Your task to perform on an android device: open app "Facebook Messenger" (install if not already installed), go to login, and select forgot password Image 0: 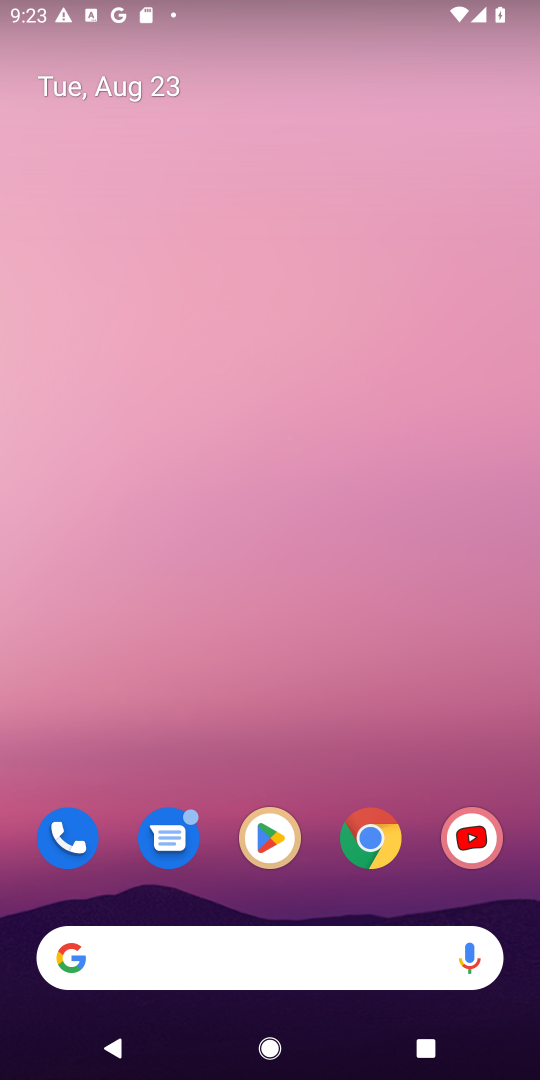
Step 0: click (269, 818)
Your task to perform on an android device: open app "Facebook Messenger" (install if not already installed), go to login, and select forgot password Image 1: 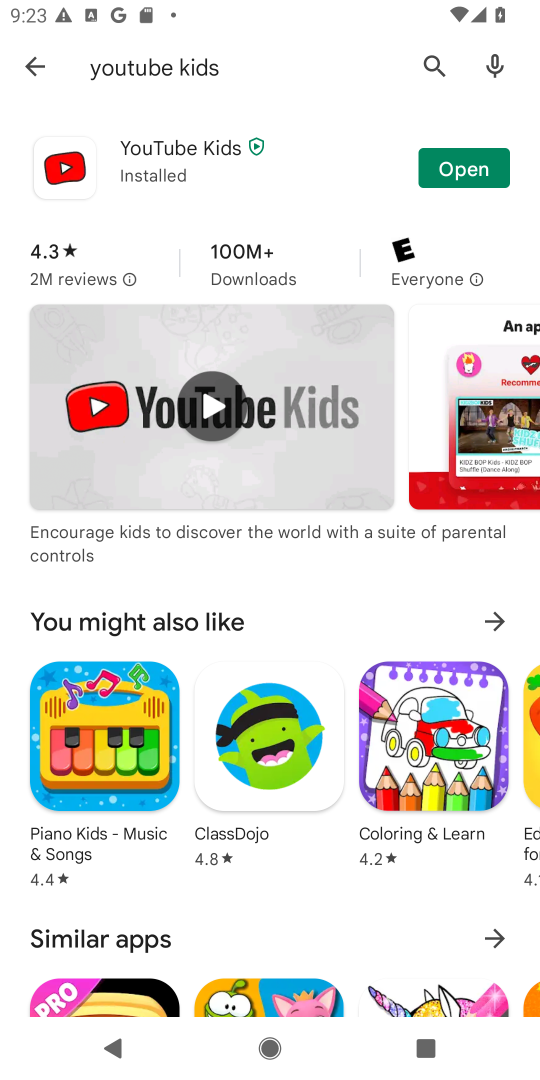
Step 1: click (415, 44)
Your task to perform on an android device: open app "Facebook Messenger" (install if not already installed), go to login, and select forgot password Image 2: 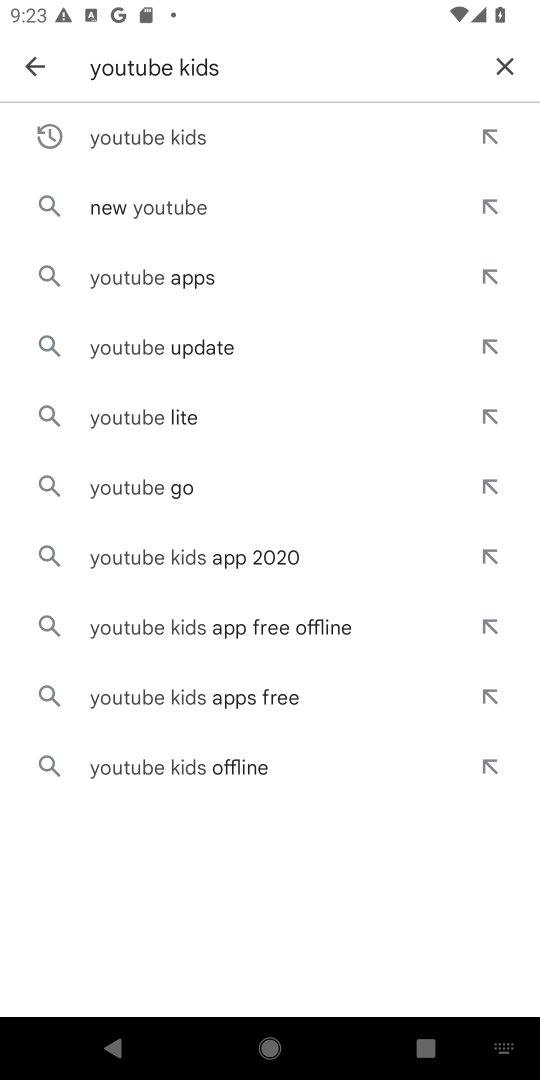
Step 2: click (508, 59)
Your task to perform on an android device: open app "Facebook Messenger" (install if not already installed), go to login, and select forgot password Image 3: 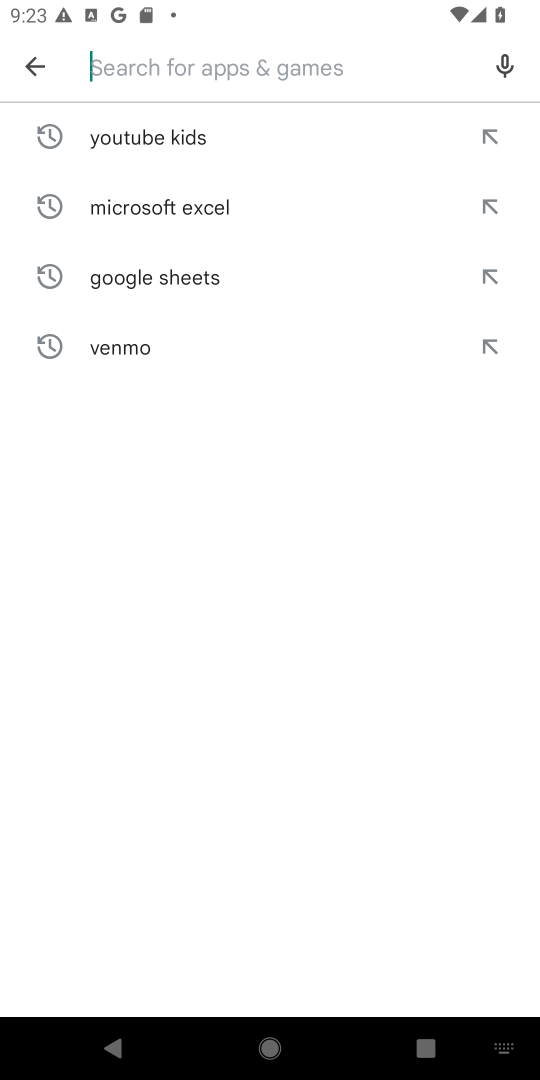
Step 3: type "Facebook Messenger"
Your task to perform on an android device: open app "Facebook Messenger" (install if not already installed), go to login, and select forgot password Image 4: 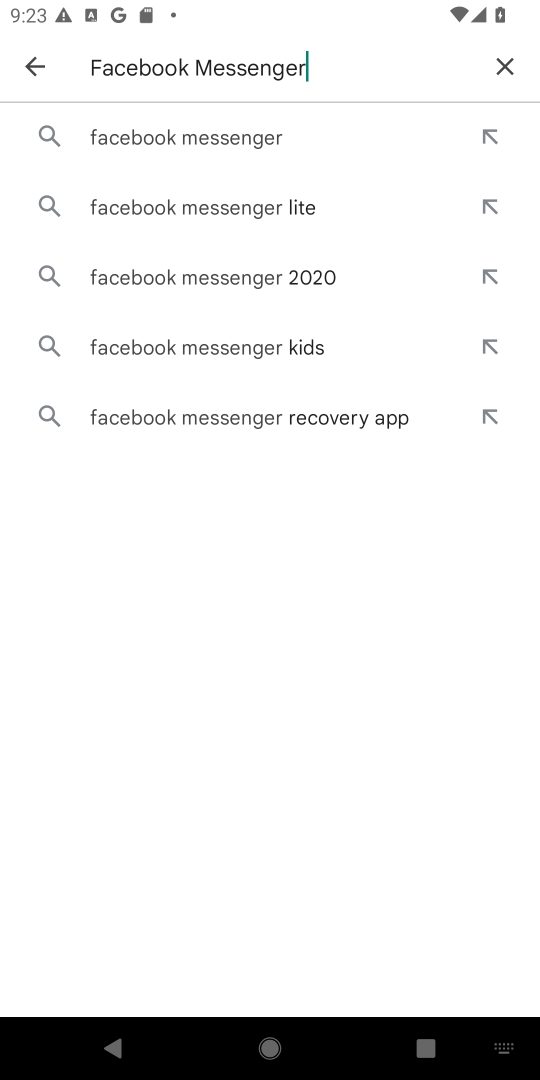
Step 4: click (224, 143)
Your task to perform on an android device: open app "Facebook Messenger" (install if not already installed), go to login, and select forgot password Image 5: 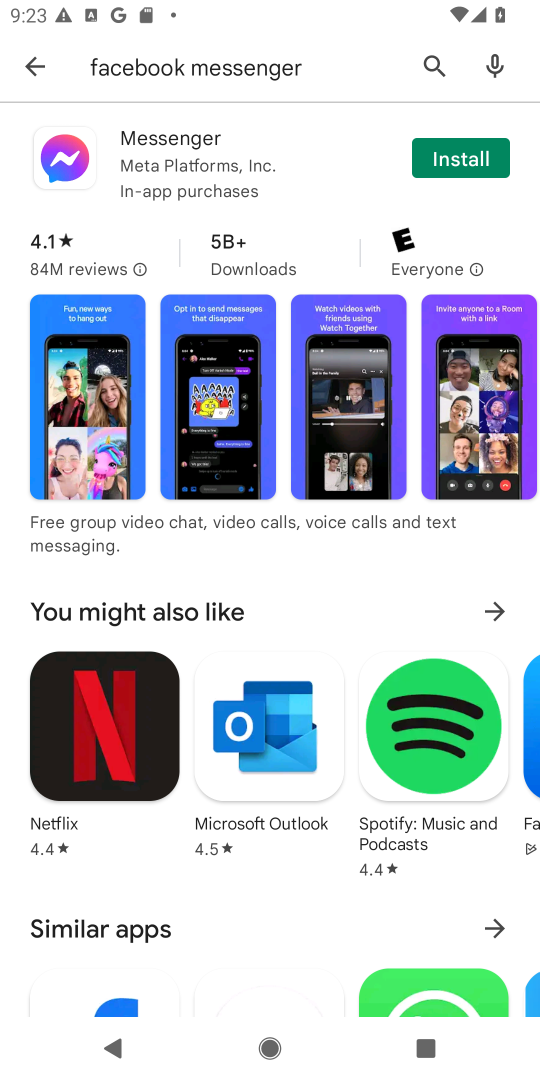
Step 5: click (449, 165)
Your task to perform on an android device: open app "Facebook Messenger" (install if not already installed), go to login, and select forgot password Image 6: 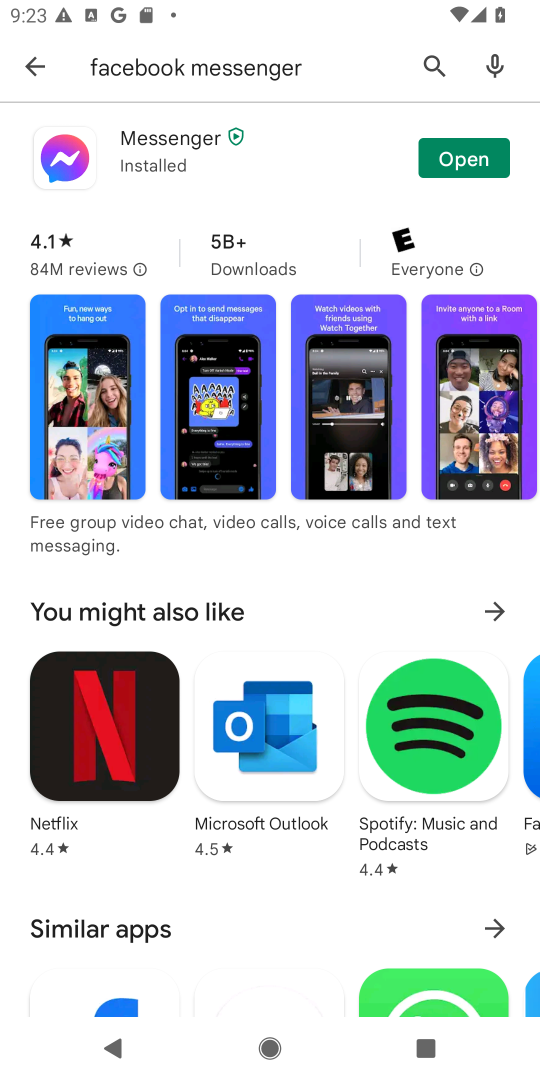
Step 6: click (447, 160)
Your task to perform on an android device: open app "Facebook Messenger" (install if not already installed), go to login, and select forgot password Image 7: 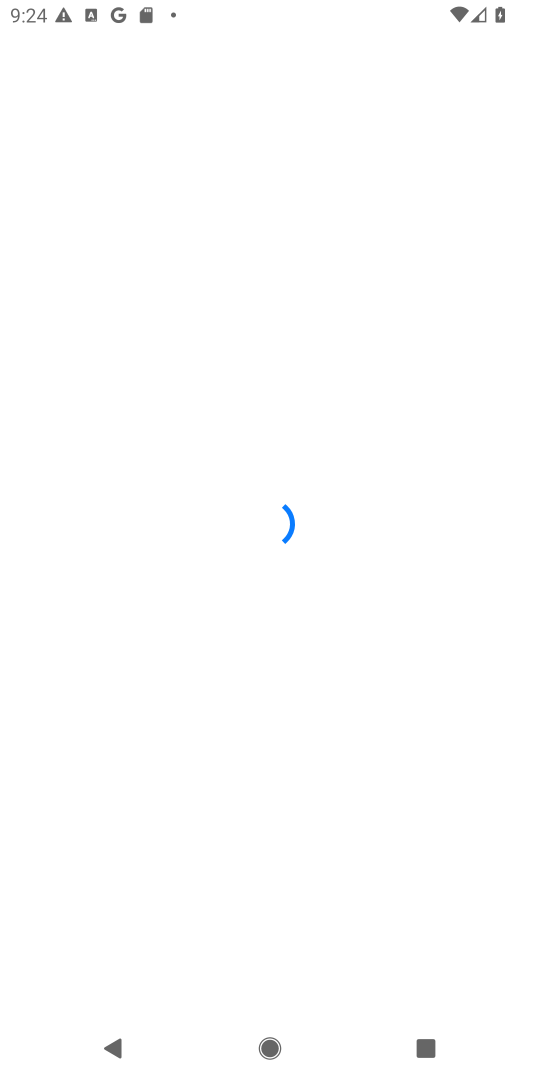
Step 7: press home button
Your task to perform on an android device: open app "Facebook Messenger" (install if not already installed), go to login, and select forgot password Image 8: 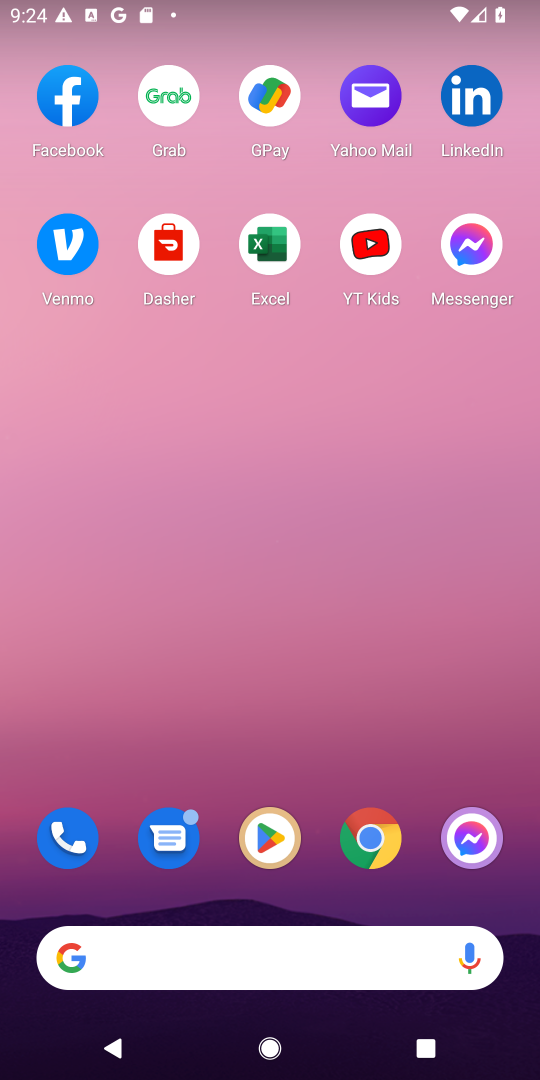
Step 8: click (280, 835)
Your task to perform on an android device: open app "Facebook Messenger" (install if not already installed), go to login, and select forgot password Image 9: 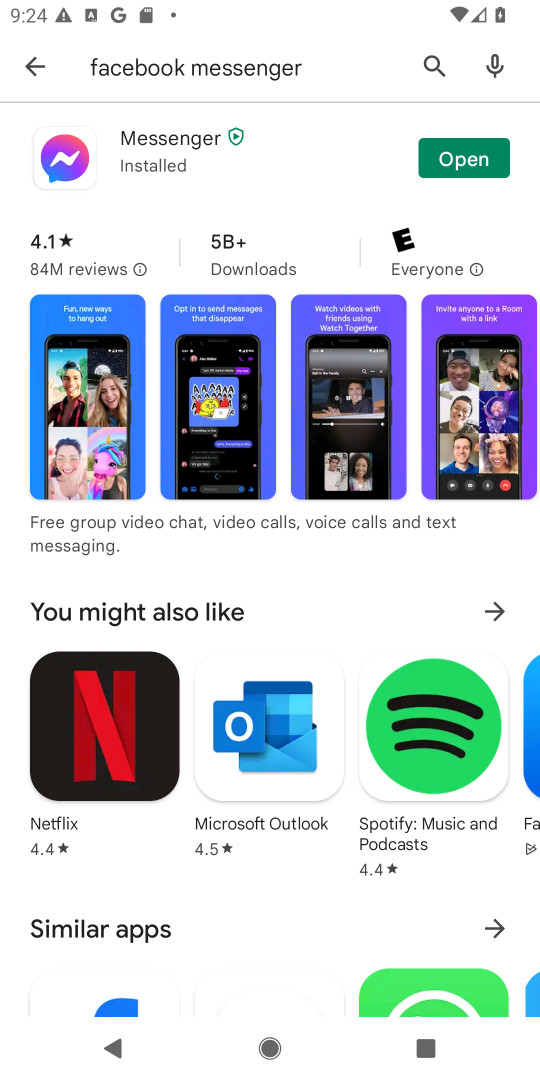
Step 9: click (456, 170)
Your task to perform on an android device: open app "Facebook Messenger" (install if not already installed), go to login, and select forgot password Image 10: 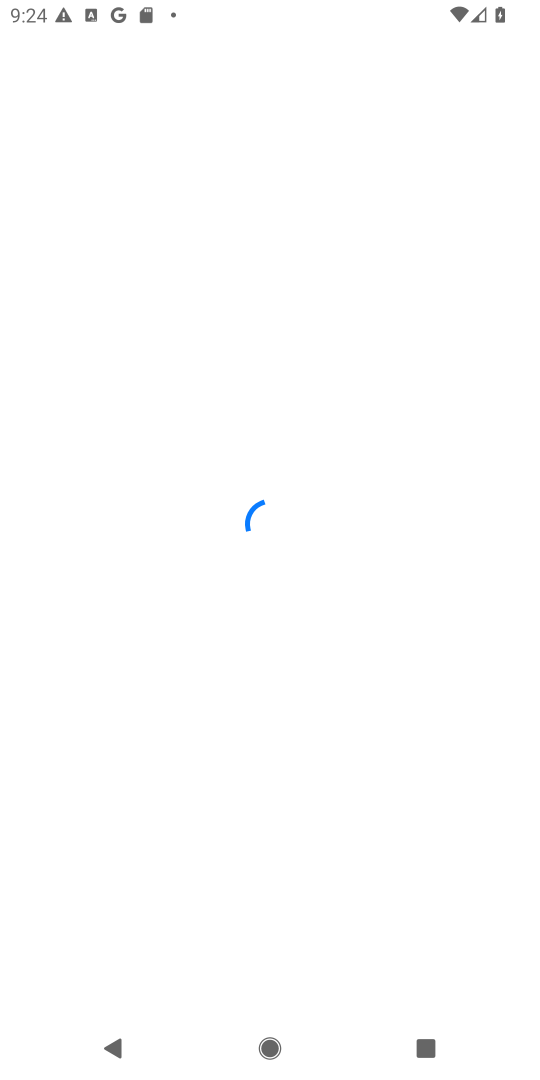
Step 10: task complete